Your task to perform on an android device: Show me the alarms in the clock app Image 0: 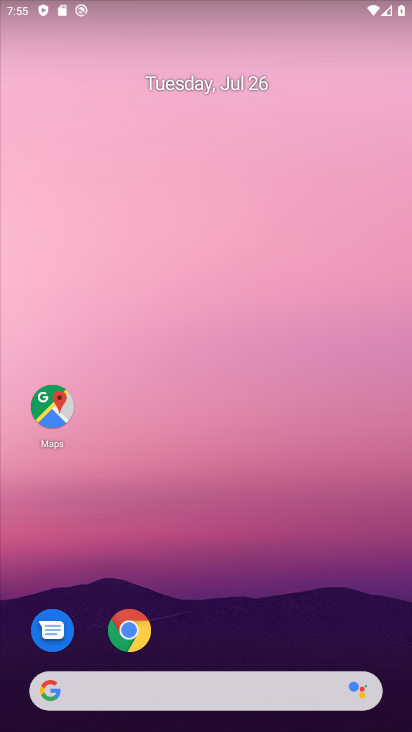
Step 0: drag from (226, 696) to (221, 386)
Your task to perform on an android device: Show me the alarms in the clock app Image 1: 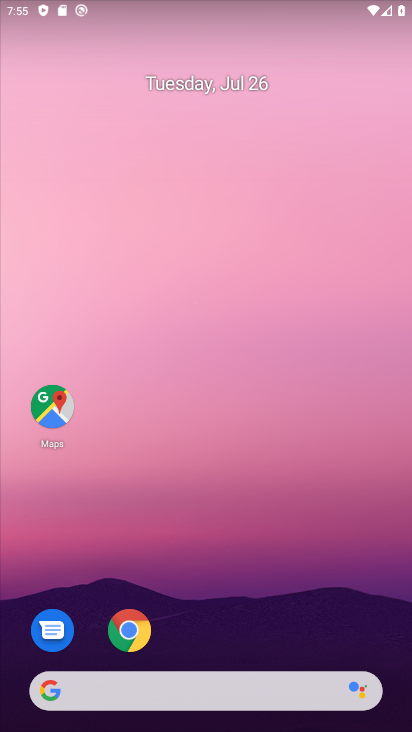
Step 1: drag from (185, 691) to (309, 67)
Your task to perform on an android device: Show me the alarms in the clock app Image 2: 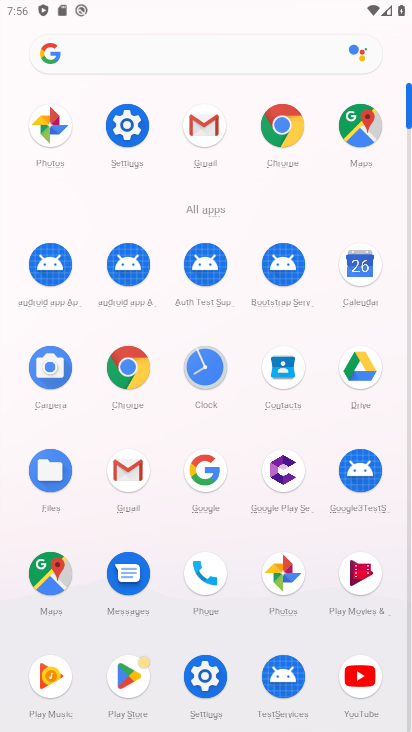
Step 2: click (204, 368)
Your task to perform on an android device: Show me the alarms in the clock app Image 3: 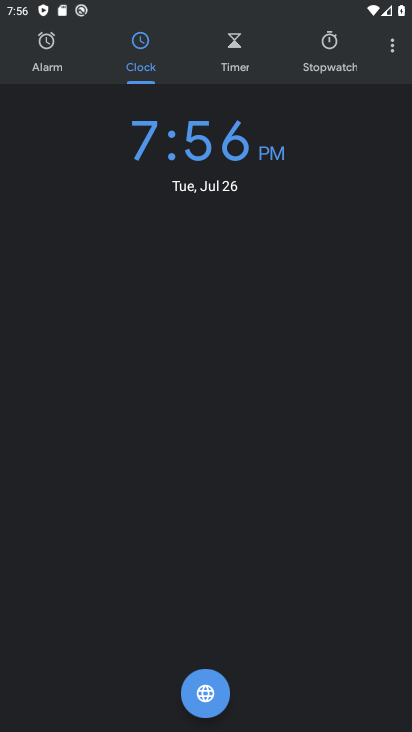
Step 3: click (48, 38)
Your task to perform on an android device: Show me the alarms in the clock app Image 4: 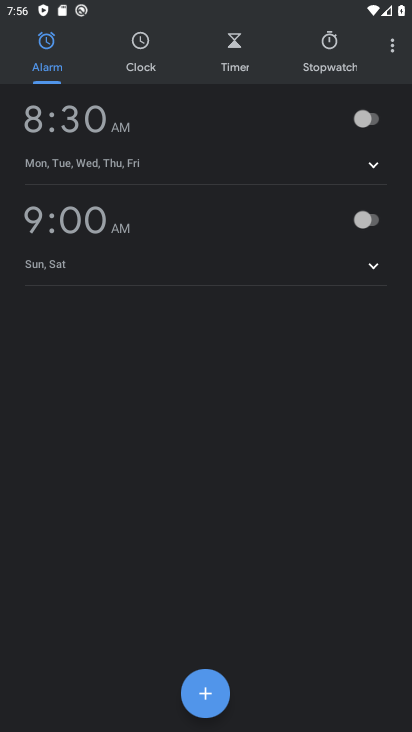
Step 4: click (206, 695)
Your task to perform on an android device: Show me the alarms in the clock app Image 5: 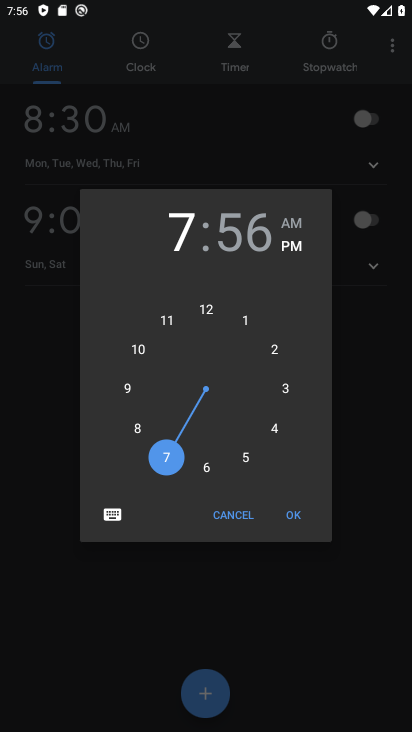
Step 5: click (205, 311)
Your task to perform on an android device: Show me the alarms in the clock app Image 6: 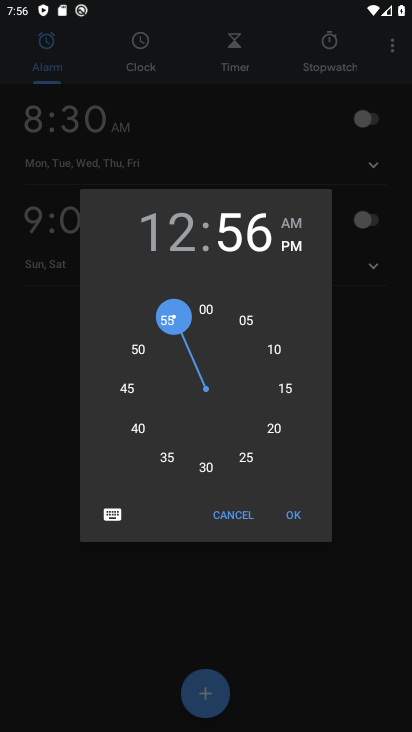
Step 6: click (205, 311)
Your task to perform on an android device: Show me the alarms in the clock app Image 7: 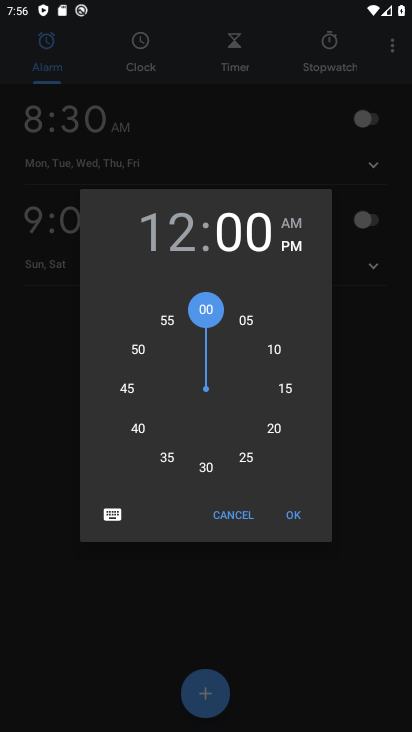
Step 7: click (296, 245)
Your task to perform on an android device: Show me the alarms in the clock app Image 8: 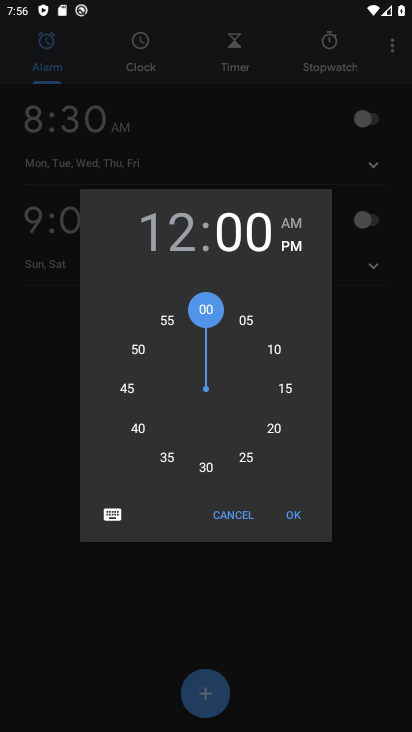
Step 8: click (297, 520)
Your task to perform on an android device: Show me the alarms in the clock app Image 9: 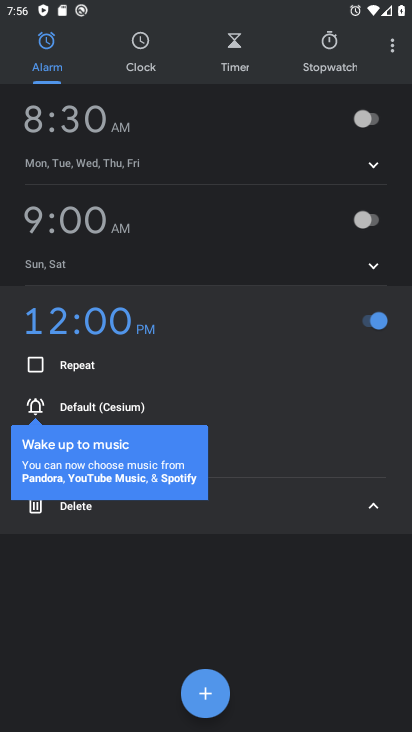
Step 9: click (373, 506)
Your task to perform on an android device: Show me the alarms in the clock app Image 10: 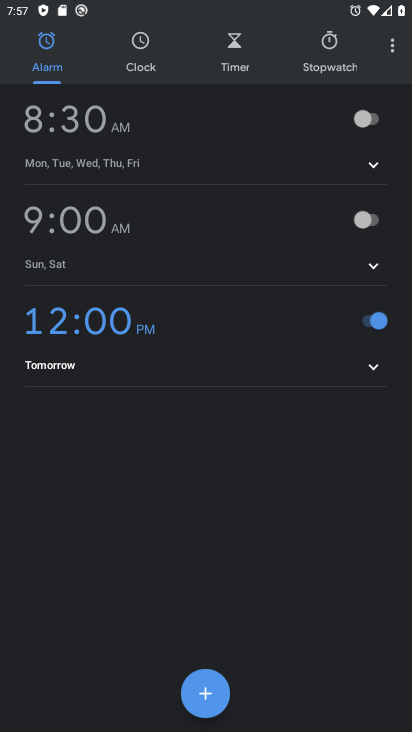
Step 10: task complete